Your task to perform on an android device: Open Google Image 0: 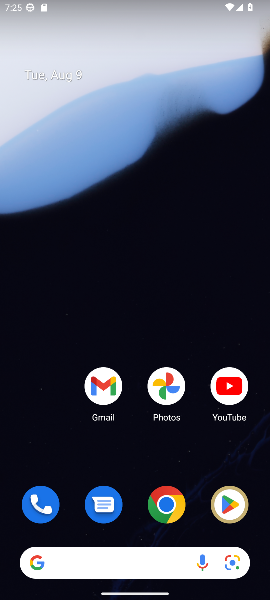
Step 0: drag from (108, 464) to (156, 16)
Your task to perform on an android device: Open Google Image 1: 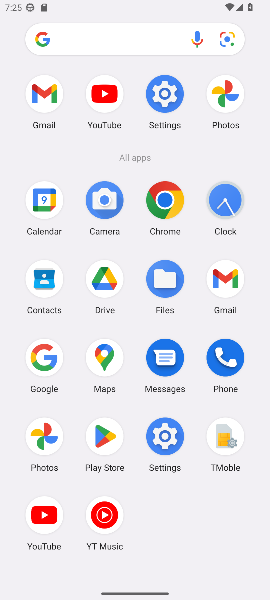
Step 1: click (54, 374)
Your task to perform on an android device: Open Google Image 2: 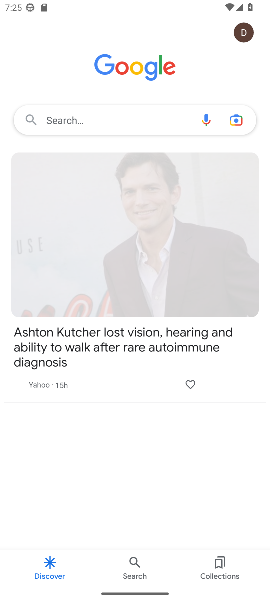
Step 2: task complete